Your task to perform on an android device: delete a single message in the gmail app Image 0: 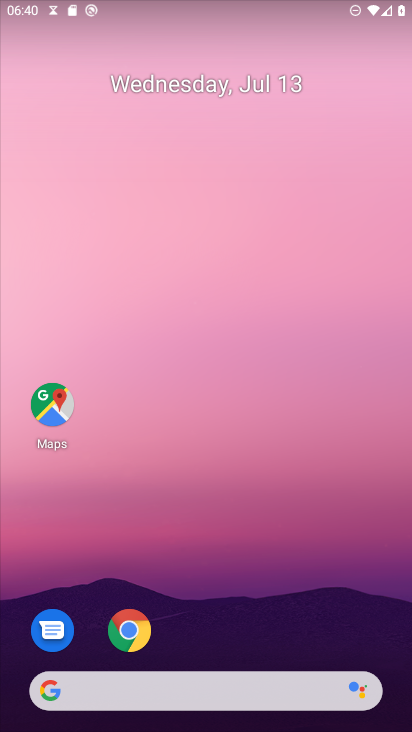
Step 0: drag from (173, 693) to (234, 23)
Your task to perform on an android device: delete a single message in the gmail app Image 1: 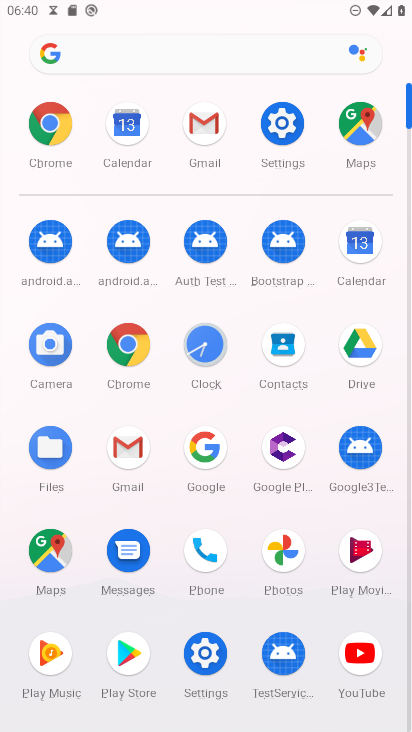
Step 1: click (129, 452)
Your task to perform on an android device: delete a single message in the gmail app Image 2: 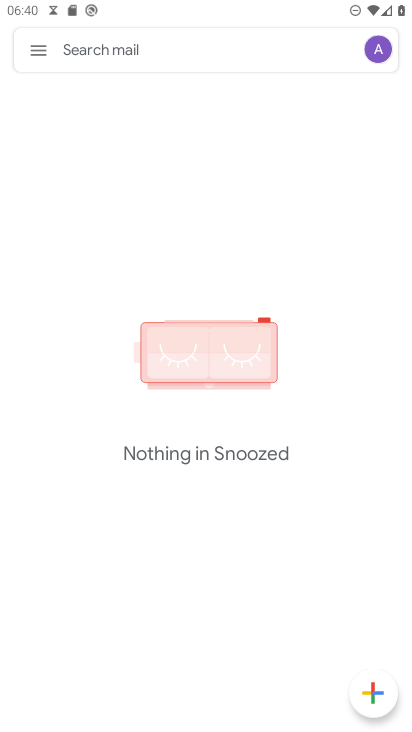
Step 2: click (40, 59)
Your task to perform on an android device: delete a single message in the gmail app Image 3: 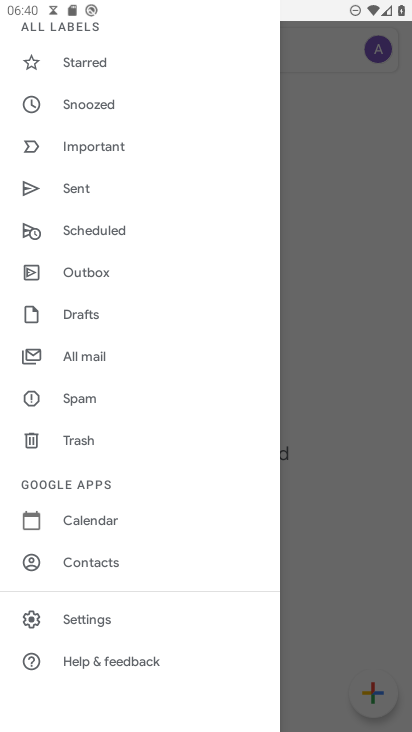
Step 3: drag from (123, 97) to (163, 478)
Your task to perform on an android device: delete a single message in the gmail app Image 4: 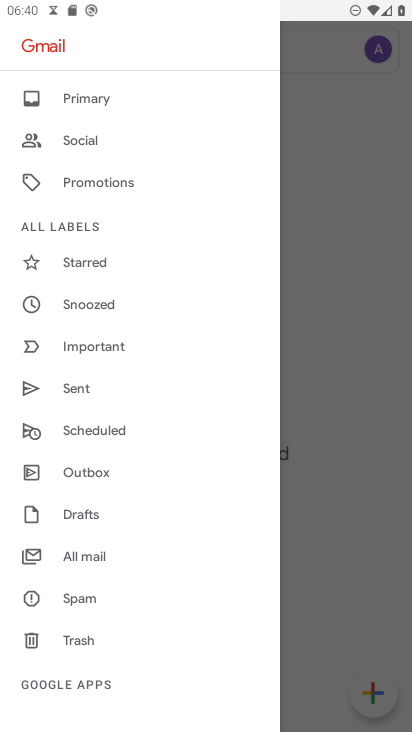
Step 4: click (111, 99)
Your task to perform on an android device: delete a single message in the gmail app Image 5: 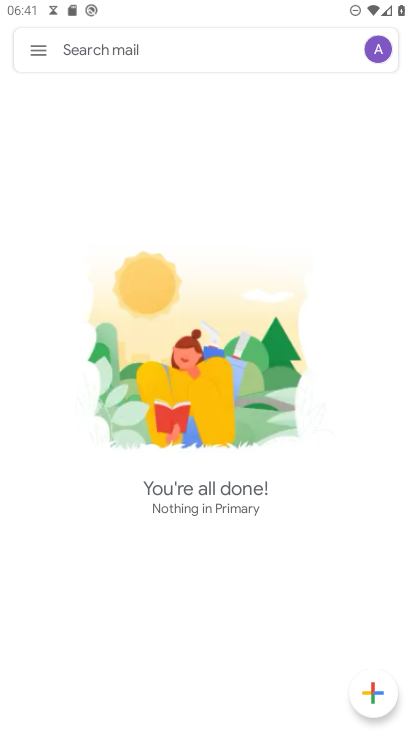
Step 5: task complete